Your task to perform on an android device: Search for flights from Tokyo to Mexico city Image 0: 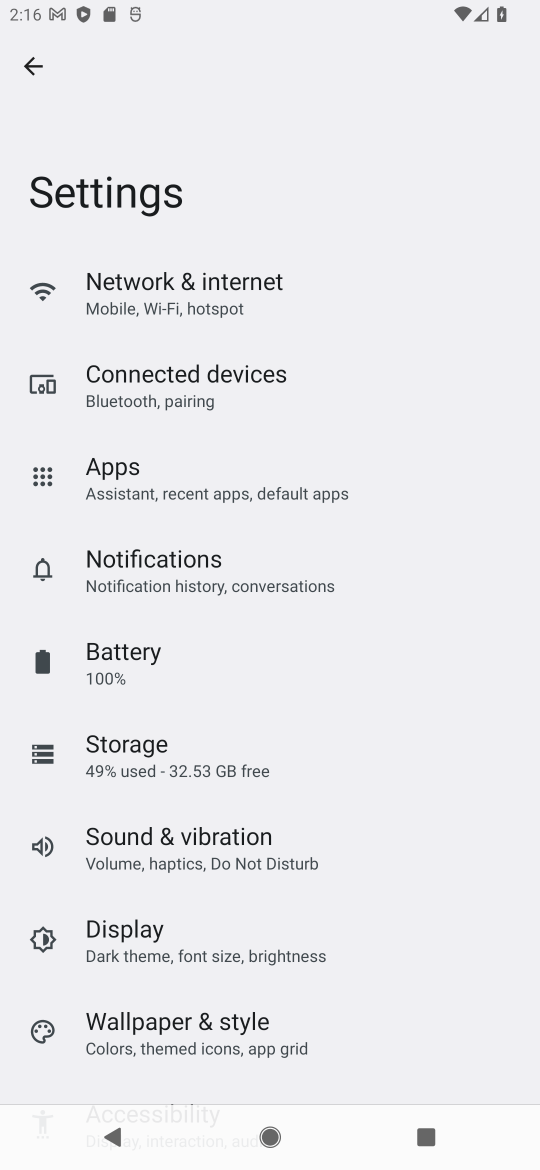
Step 0: press home button
Your task to perform on an android device: Search for flights from Tokyo to Mexico city Image 1: 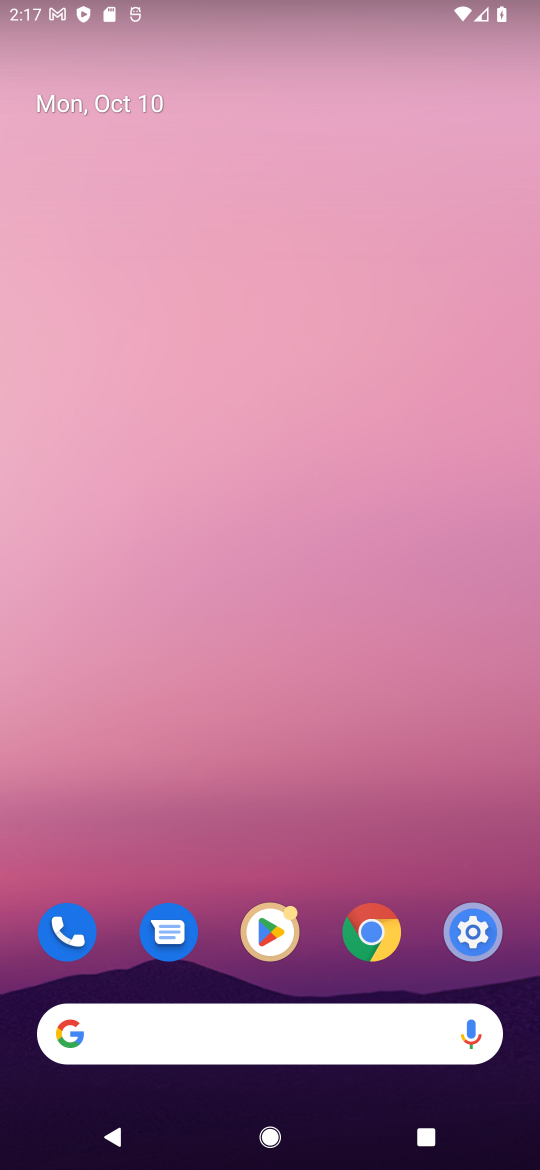
Step 1: click (279, 1031)
Your task to perform on an android device: Search for flights from Tokyo to Mexico city Image 2: 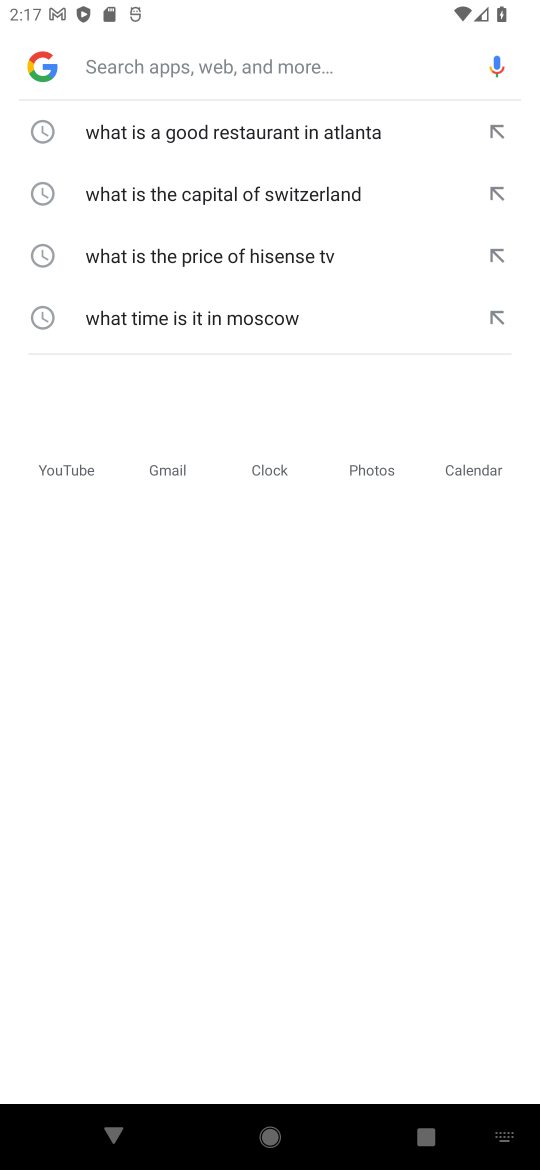
Step 2: type "flights from Tokyo to Mexico city"
Your task to perform on an android device: Search for flights from Tokyo to Mexico city Image 3: 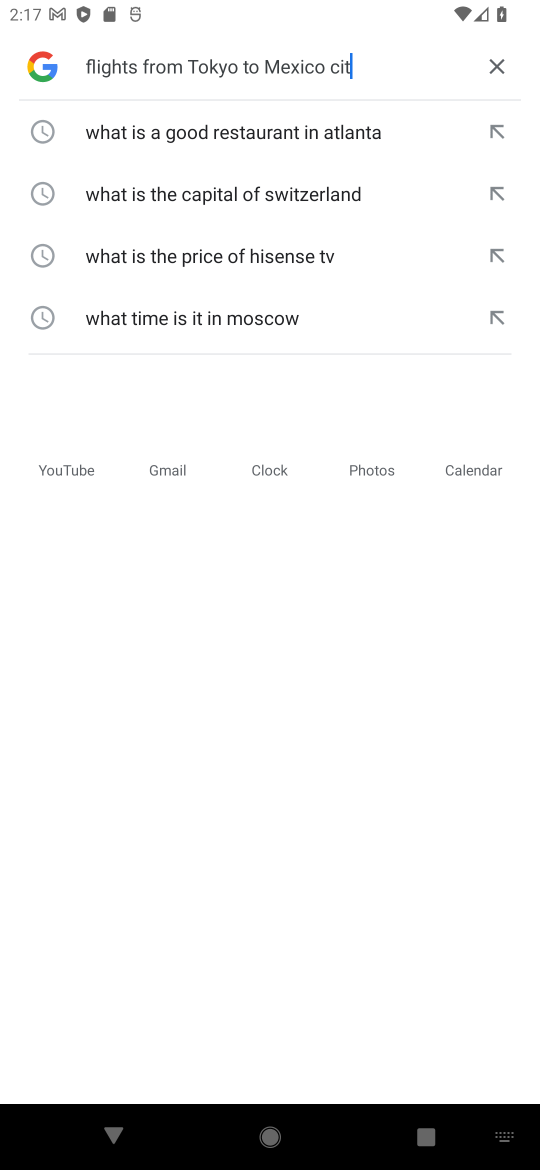
Step 3: press enter
Your task to perform on an android device: Search for flights from Tokyo to Mexico city Image 4: 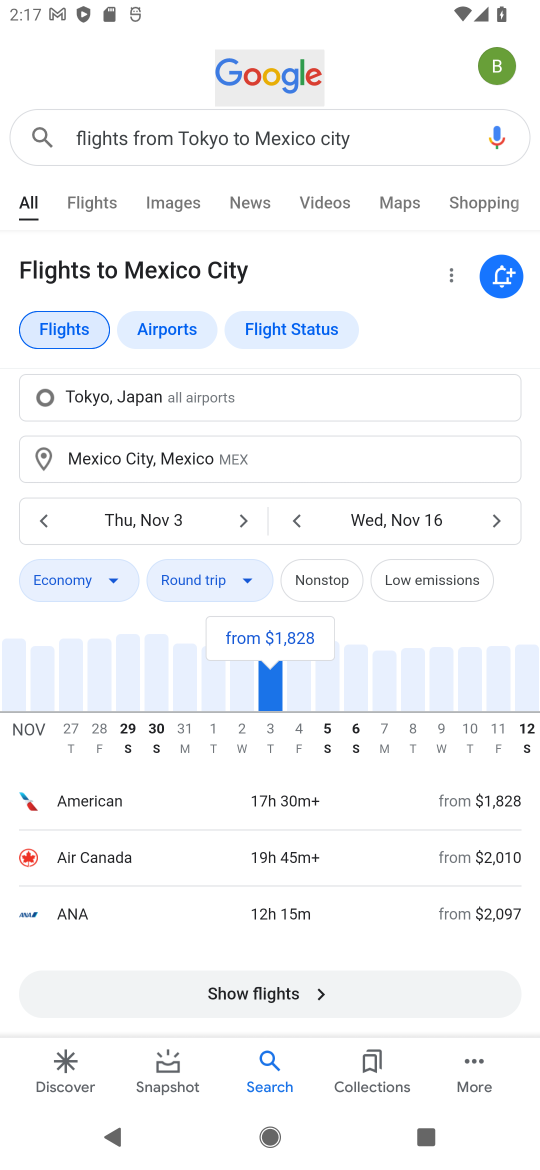
Step 4: drag from (367, 818) to (384, 418)
Your task to perform on an android device: Search for flights from Tokyo to Mexico city Image 5: 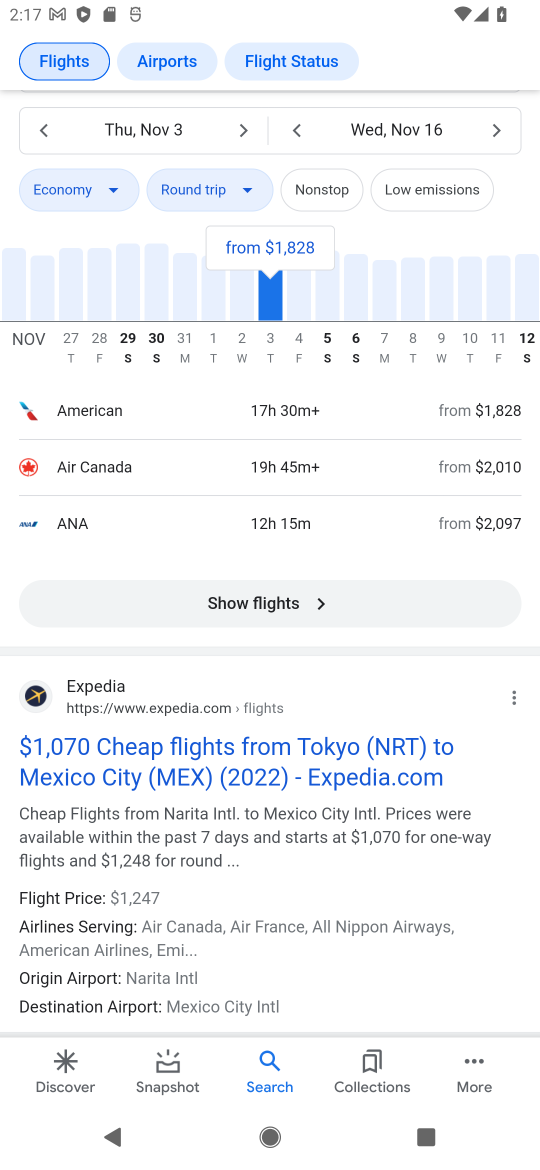
Step 5: click (277, 603)
Your task to perform on an android device: Search for flights from Tokyo to Mexico city Image 6: 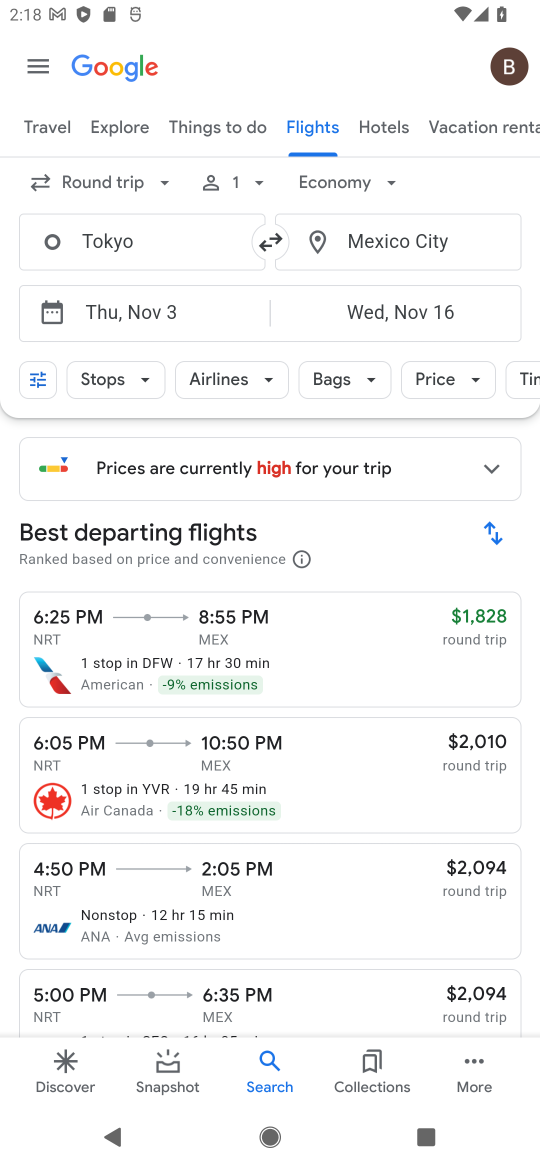
Step 6: task complete